Your task to perform on an android device: set the timer Image 0: 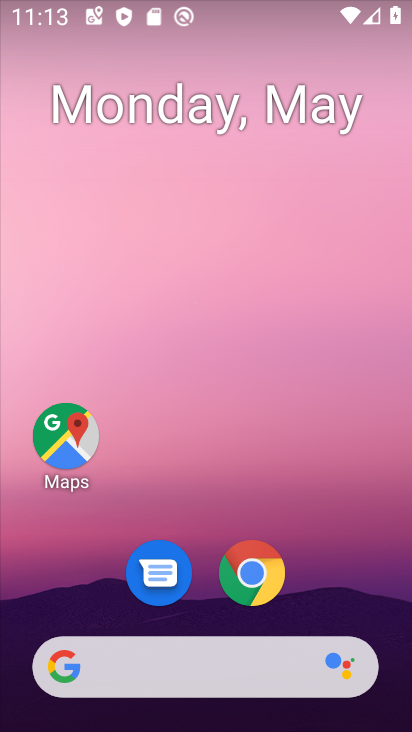
Step 0: drag from (331, 479) to (217, 65)
Your task to perform on an android device: set the timer Image 1: 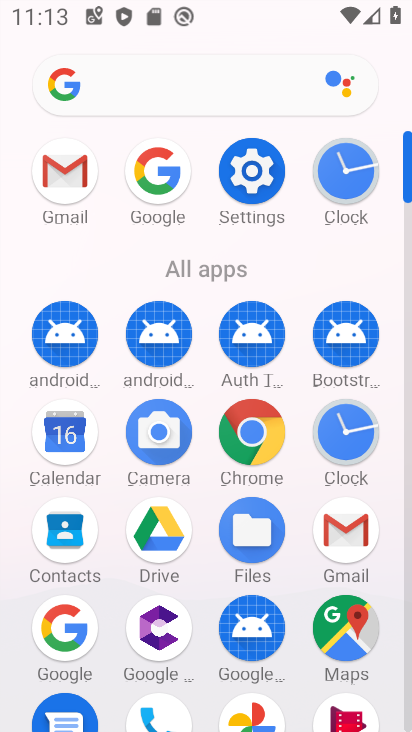
Step 1: click (337, 185)
Your task to perform on an android device: set the timer Image 2: 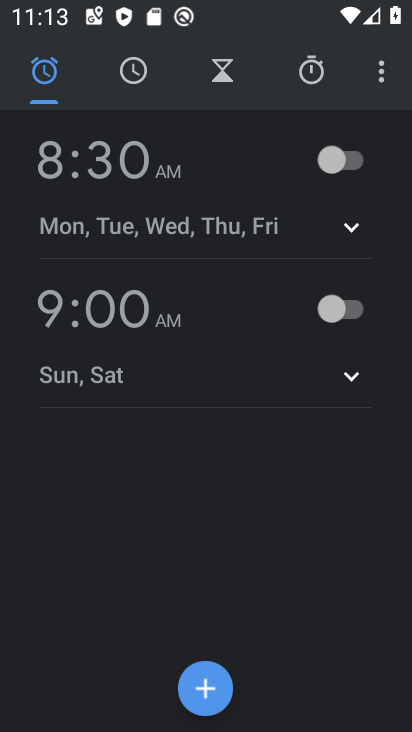
Step 2: click (230, 84)
Your task to perform on an android device: set the timer Image 3: 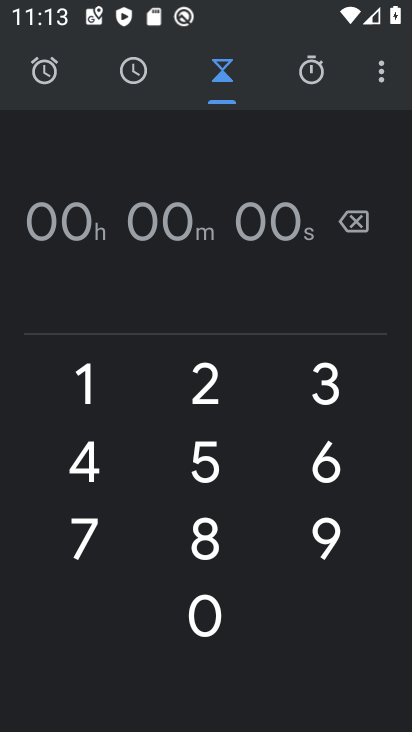
Step 3: click (98, 382)
Your task to perform on an android device: set the timer Image 4: 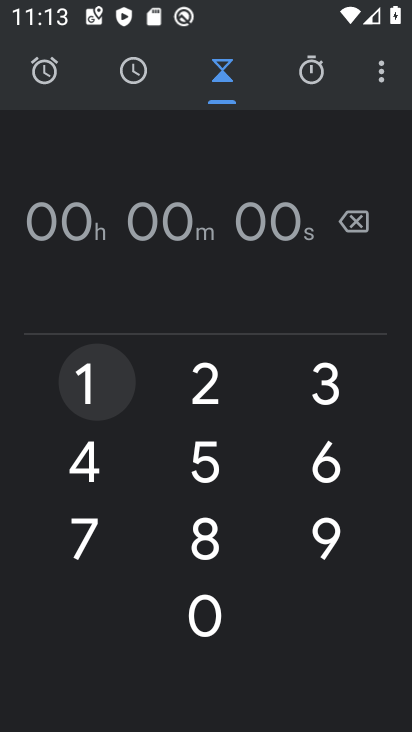
Step 4: click (97, 381)
Your task to perform on an android device: set the timer Image 5: 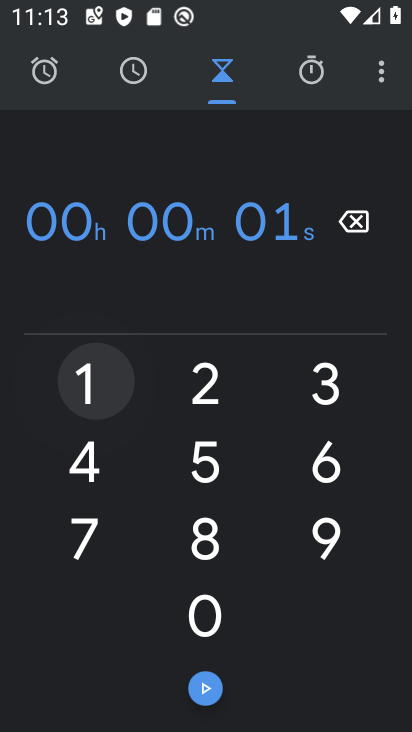
Step 5: click (97, 379)
Your task to perform on an android device: set the timer Image 6: 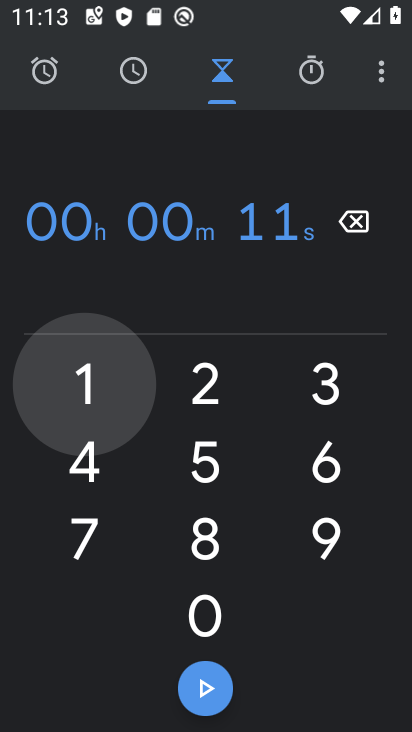
Step 6: click (97, 379)
Your task to perform on an android device: set the timer Image 7: 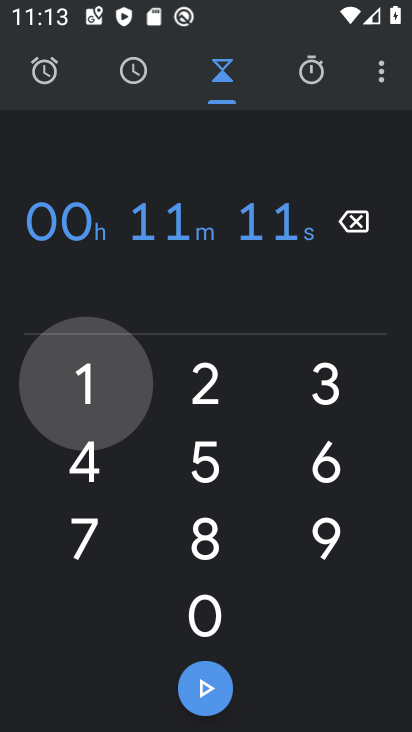
Step 7: click (97, 379)
Your task to perform on an android device: set the timer Image 8: 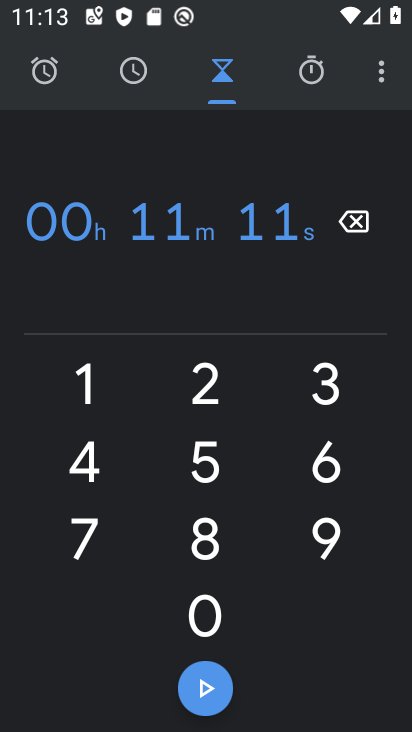
Step 8: click (99, 378)
Your task to perform on an android device: set the timer Image 9: 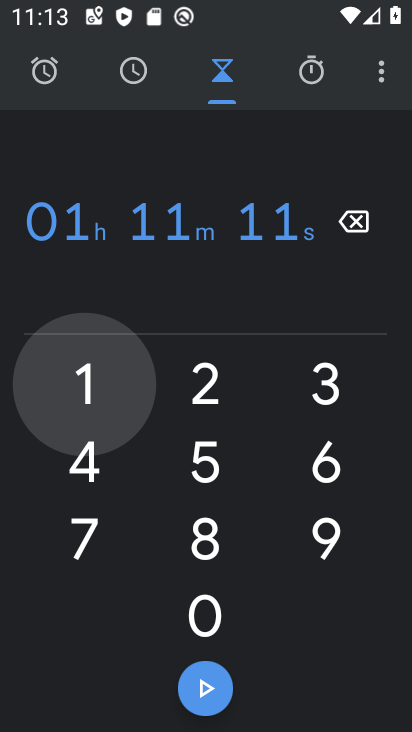
Step 9: click (99, 378)
Your task to perform on an android device: set the timer Image 10: 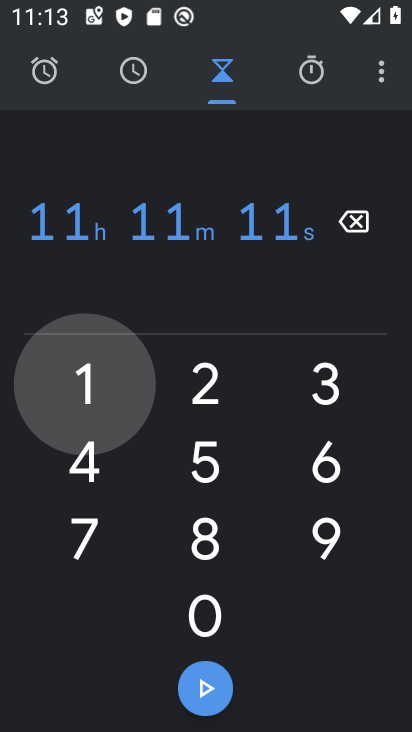
Step 10: click (100, 377)
Your task to perform on an android device: set the timer Image 11: 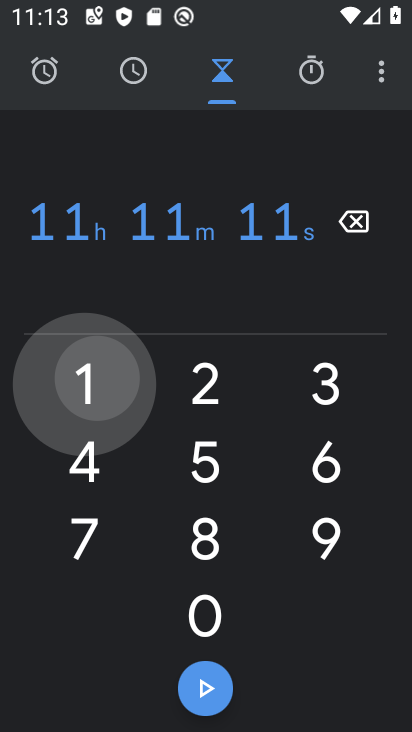
Step 11: click (100, 377)
Your task to perform on an android device: set the timer Image 12: 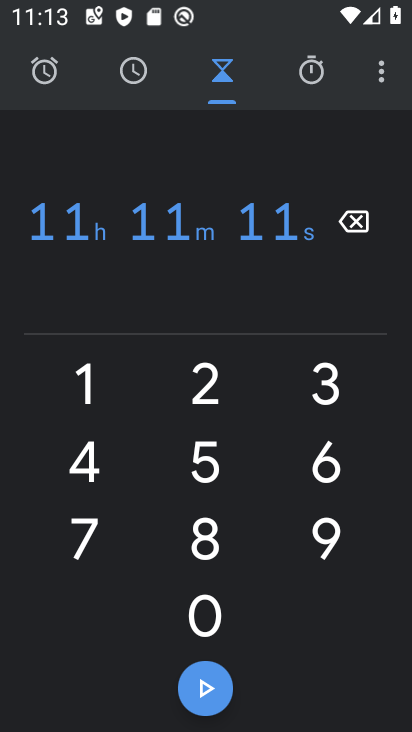
Step 12: click (202, 701)
Your task to perform on an android device: set the timer Image 13: 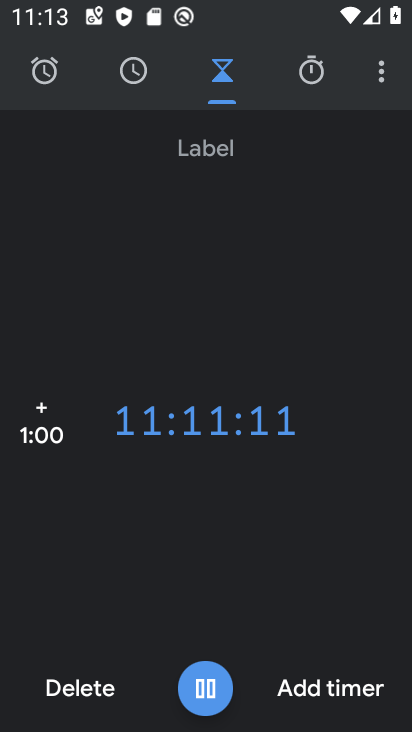
Step 13: task complete